Your task to perform on an android device: Open calendar and show me the first week of next month Image 0: 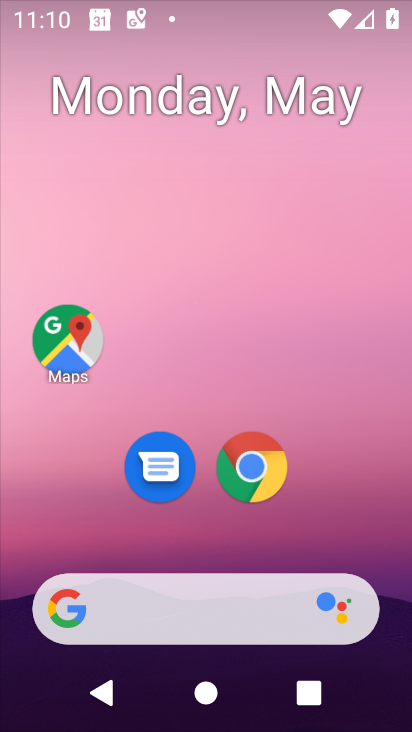
Step 0: drag from (379, 556) to (241, 221)
Your task to perform on an android device: Open calendar and show me the first week of next month Image 1: 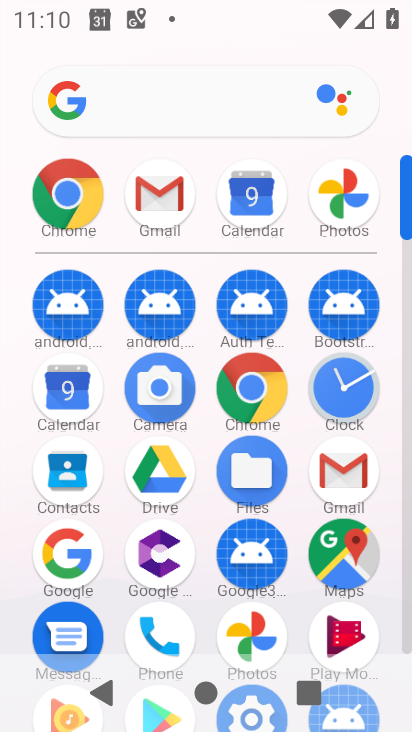
Step 1: click (69, 384)
Your task to perform on an android device: Open calendar and show me the first week of next month Image 2: 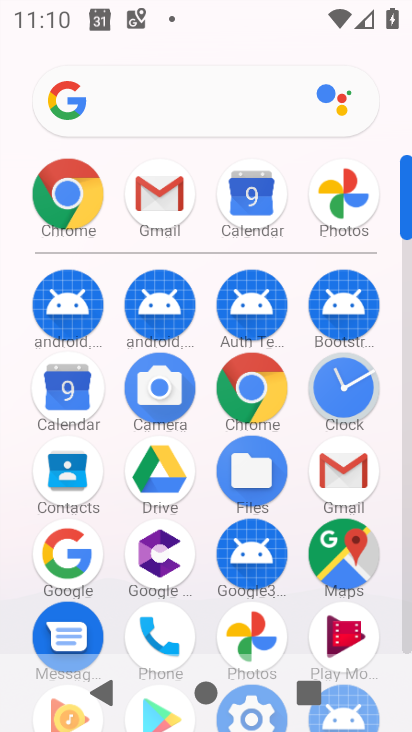
Step 2: click (68, 383)
Your task to perform on an android device: Open calendar and show me the first week of next month Image 3: 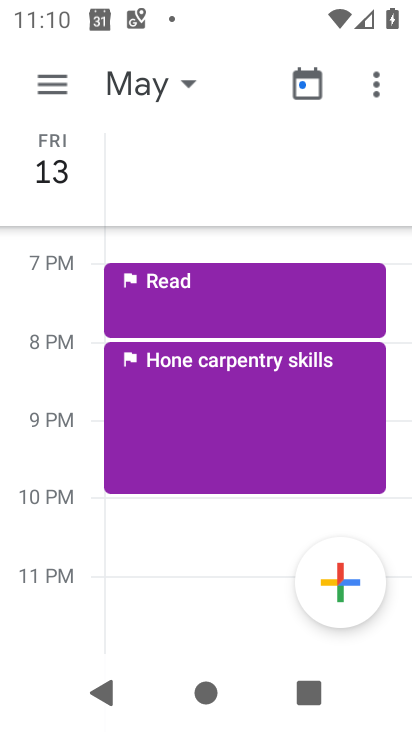
Step 3: click (76, 378)
Your task to perform on an android device: Open calendar and show me the first week of next month Image 4: 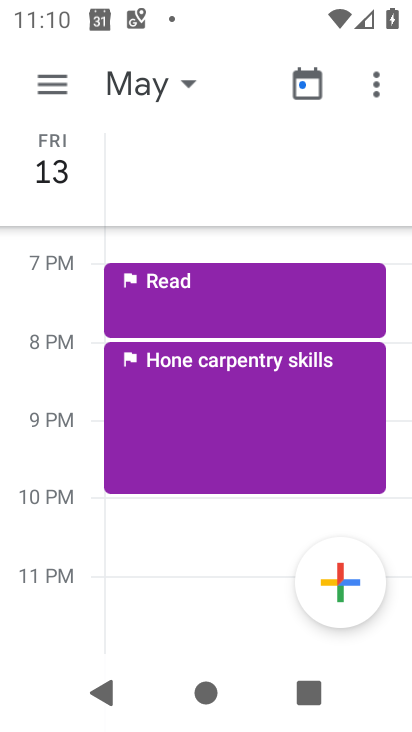
Step 4: click (185, 84)
Your task to perform on an android device: Open calendar and show me the first week of next month Image 5: 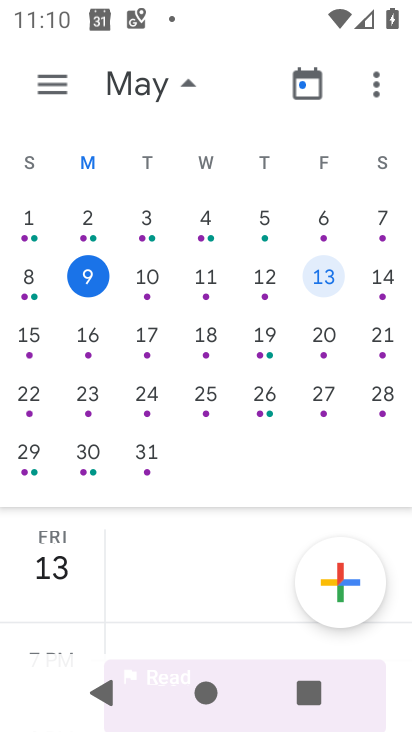
Step 5: drag from (186, 287) to (2, 261)
Your task to perform on an android device: Open calendar and show me the first week of next month Image 6: 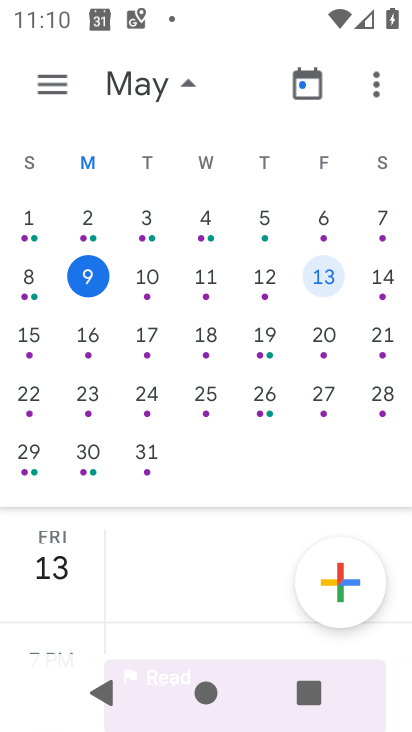
Step 6: drag from (220, 322) to (5, 296)
Your task to perform on an android device: Open calendar and show me the first week of next month Image 7: 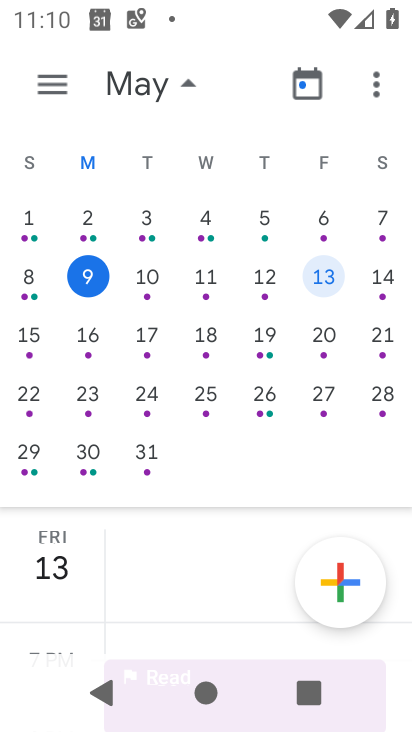
Step 7: drag from (269, 306) to (28, 332)
Your task to perform on an android device: Open calendar and show me the first week of next month Image 8: 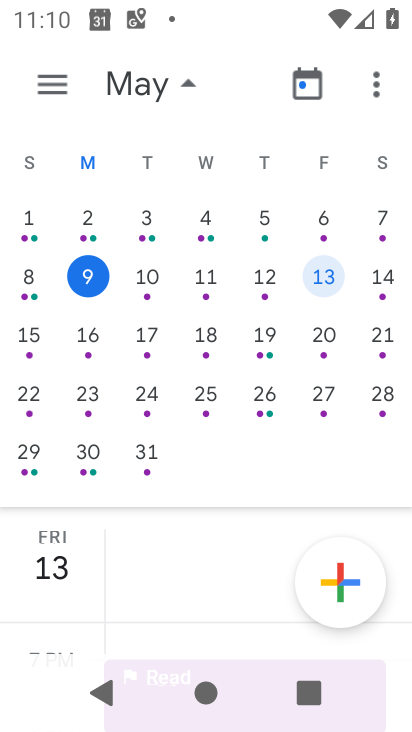
Step 8: drag from (258, 323) to (32, 368)
Your task to perform on an android device: Open calendar and show me the first week of next month Image 9: 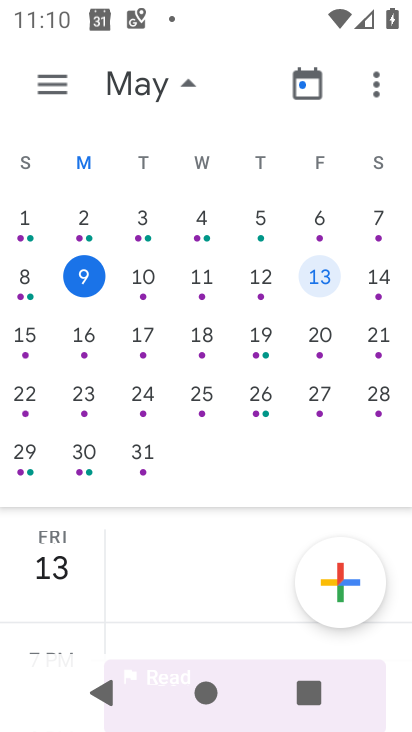
Step 9: drag from (411, 334) to (9, 335)
Your task to perform on an android device: Open calendar and show me the first week of next month Image 10: 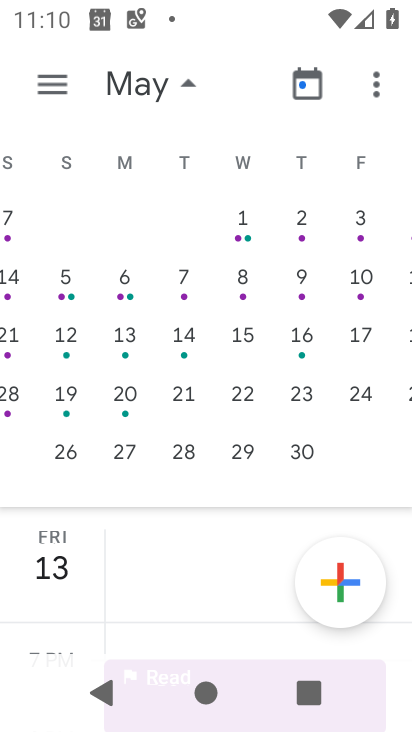
Step 10: drag from (305, 321) to (101, 396)
Your task to perform on an android device: Open calendar and show me the first week of next month Image 11: 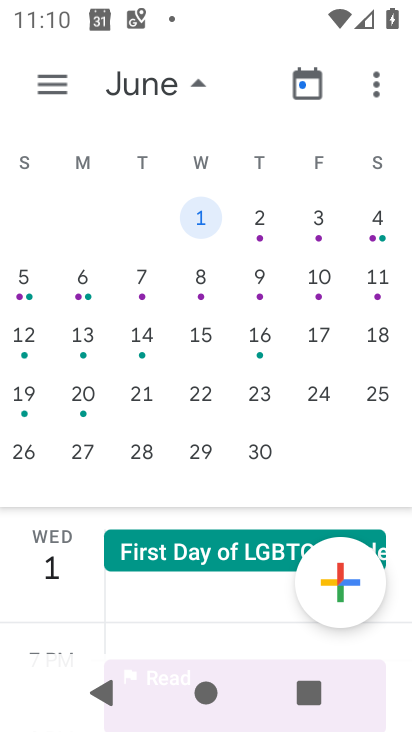
Step 11: drag from (305, 301) to (6, 316)
Your task to perform on an android device: Open calendar and show me the first week of next month Image 12: 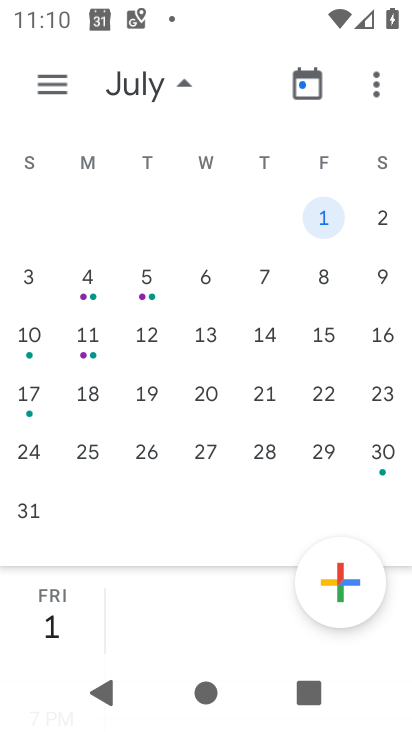
Step 12: drag from (122, 303) to (395, 347)
Your task to perform on an android device: Open calendar and show me the first week of next month Image 13: 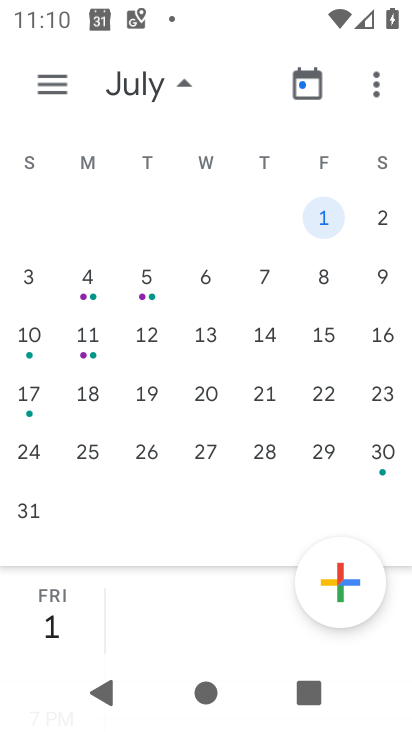
Step 13: drag from (70, 311) to (376, 396)
Your task to perform on an android device: Open calendar and show me the first week of next month Image 14: 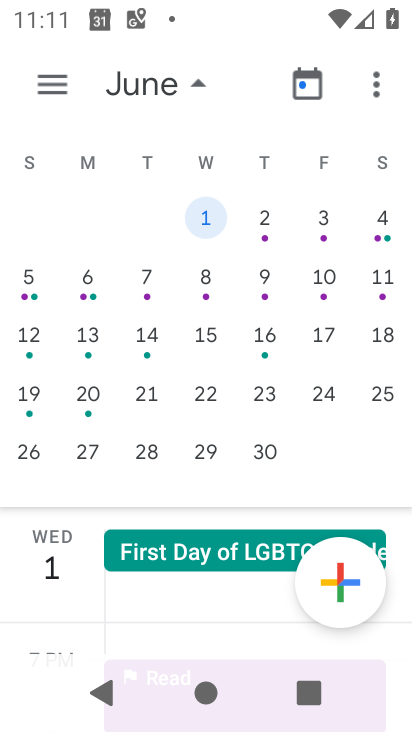
Step 14: click (265, 216)
Your task to perform on an android device: Open calendar and show me the first week of next month Image 15: 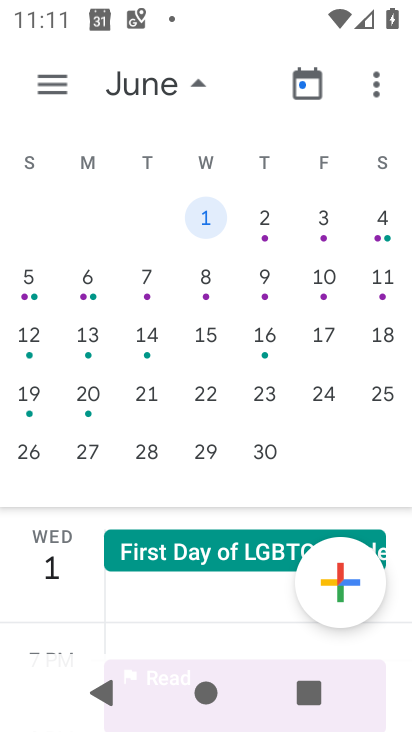
Step 15: click (265, 216)
Your task to perform on an android device: Open calendar and show me the first week of next month Image 16: 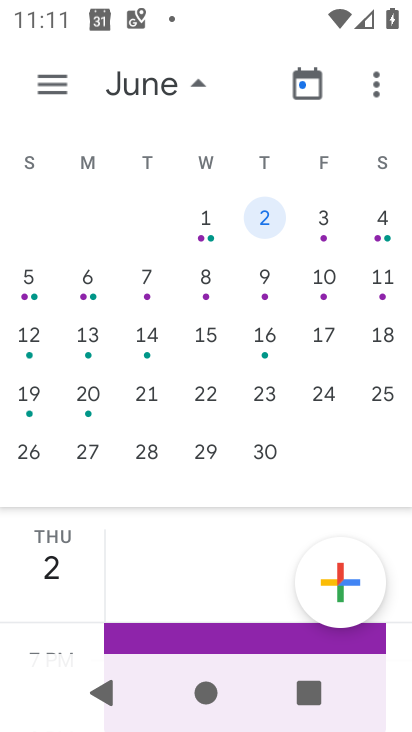
Step 16: click (265, 216)
Your task to perform on an android device: Open calendar and show me the first week of next month Image 17: 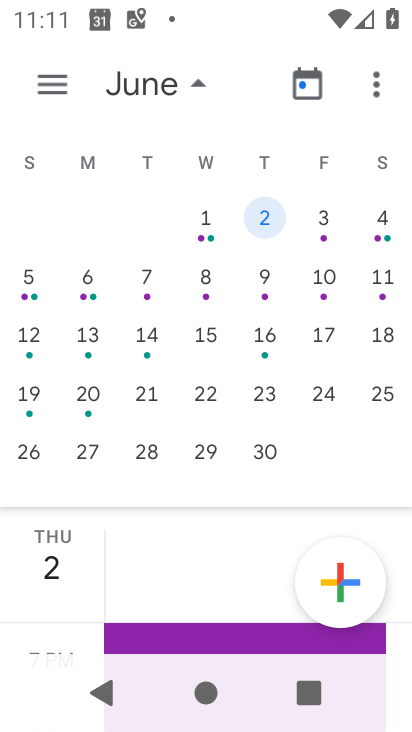
Step 17: task complete